Your task to perform on an android device: open chrome and create a bookmark for the current page Image 0: 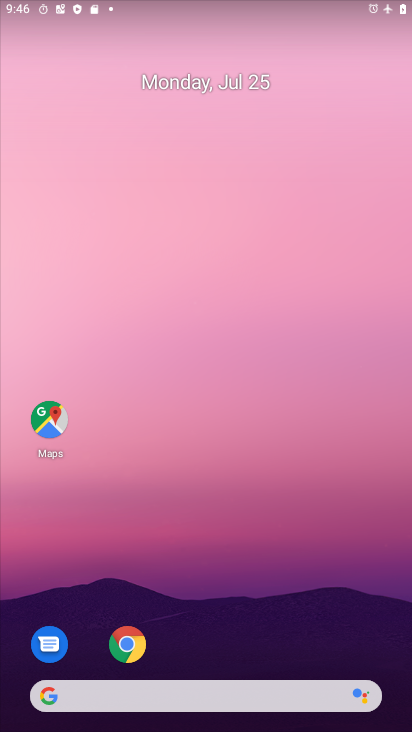
Step 0: drag from (265, 550) to (251, 77)
Your task to perform on an android device: open chrome and create a bookmark for the current page Image 1: 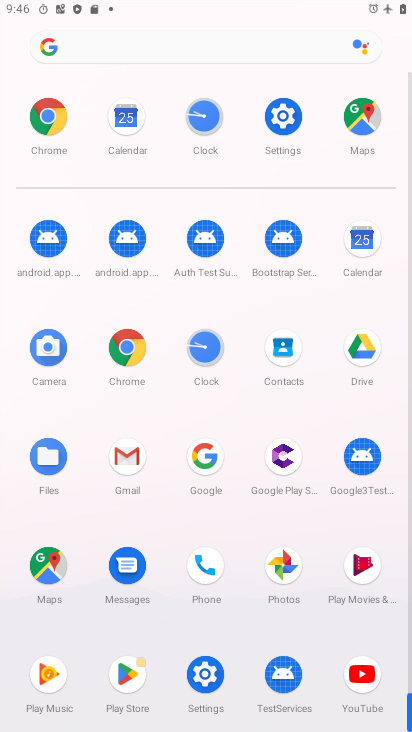
Step 1: click (123, 358)
Your task to perform on an android device: open chrome and create a bookmark for the current page Image 2: 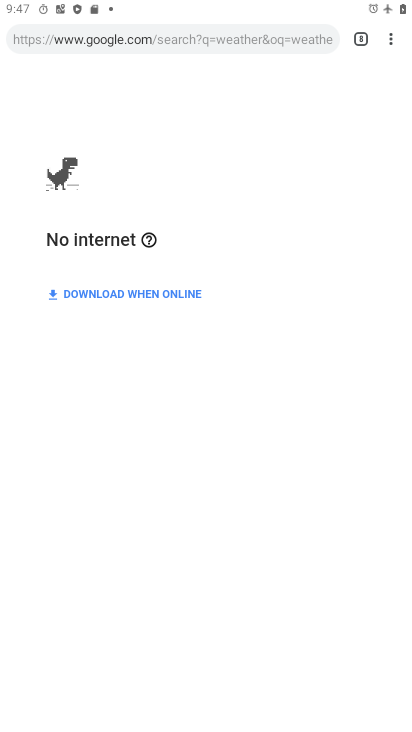
Step 2: click (395, 41)
Your task to perform on an android device: open chrome and create a bookmark for the current page Image 3: 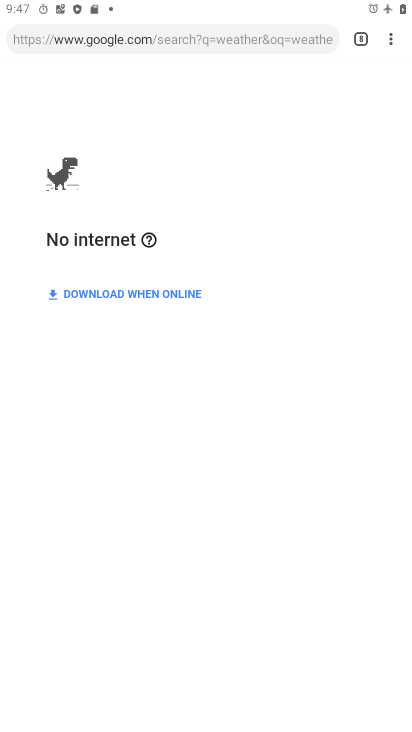
Step 3: task complete